Your task to perform on an android device: Open Youtube and go to the subscriptions tab Image 0: 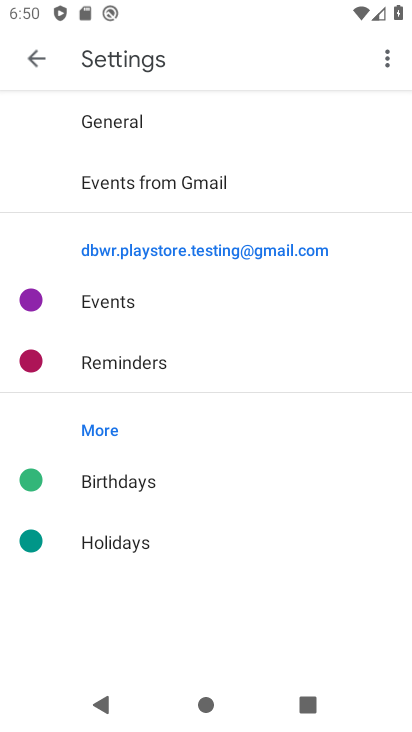
Step 0: press home button
Your task to perform on an android device: Open Youtube and go to the subscriptions tab Image 1: 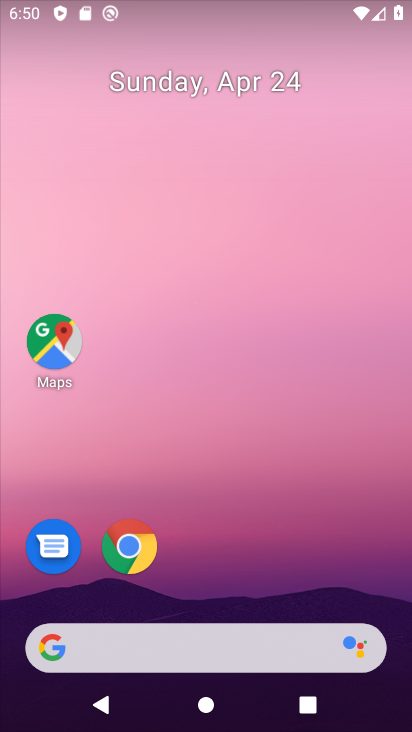
Step 1: drag from (239, 564) to (283, 0)
Your task to perform on an android device: Open Youtube and go to the subscriptions tab Image 2: 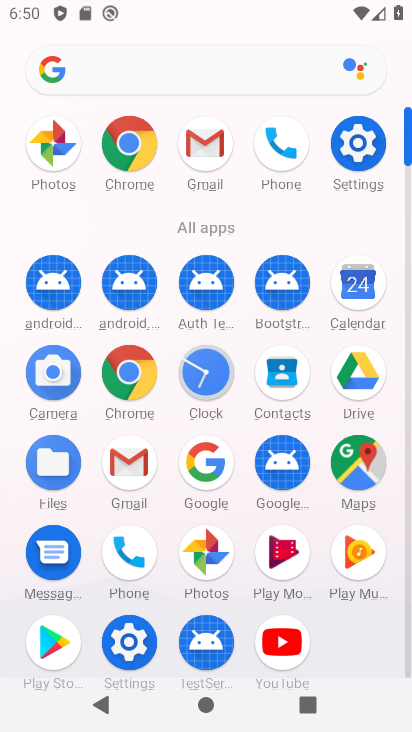
Step 2: click (279, 641)
Your task to perform on an android device: Open Youtube and go to the subscriptions tab Image 3: 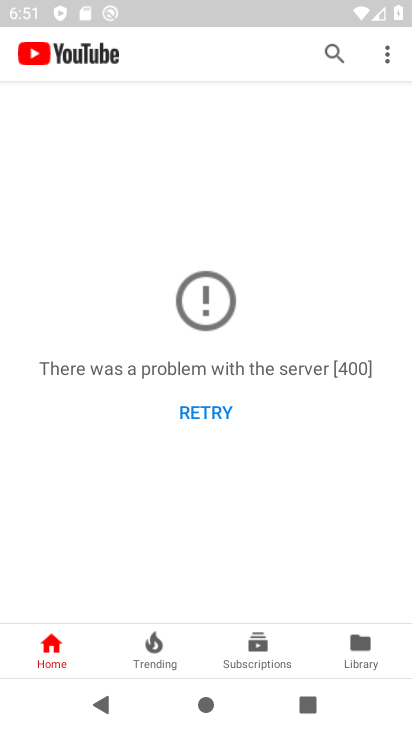
Step 3: click (258, 647)
Your task to perform on an android device: Open Youtube and go to the subscriptions tab Image 4: 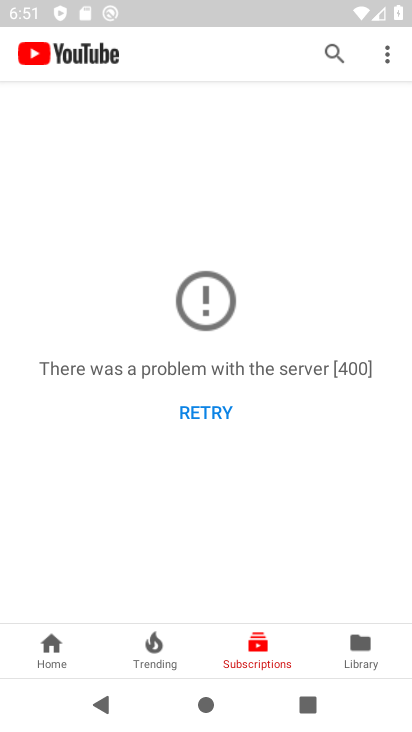
Step 4: click (258, 647)
Your task to perform on an android device: Open Youtube and go to the subscriptions tab Image 5: 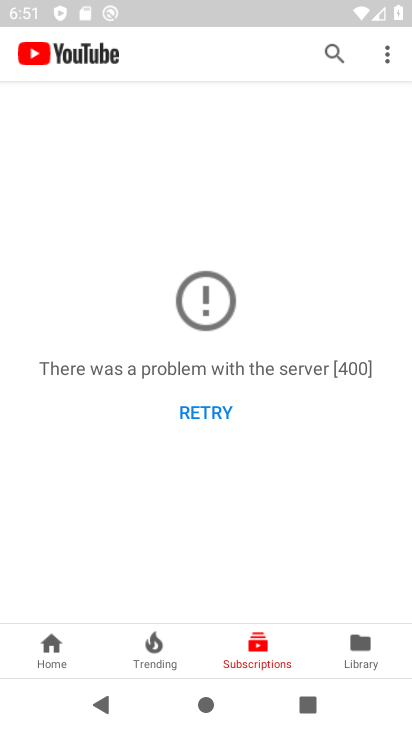
Step 5: task complete